Your task to perform on an android device: add a contact in the contacts app Image 0: 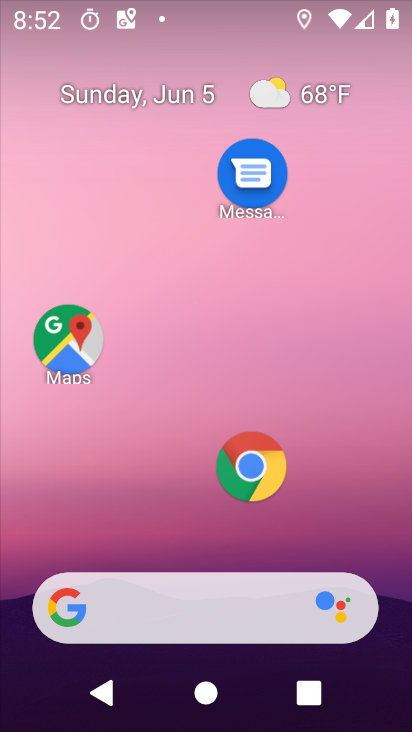
Step 0: drag from (217, 523) to (199, 34)
Your task to perform on an android device: add a contact in the contacts app Image 1: 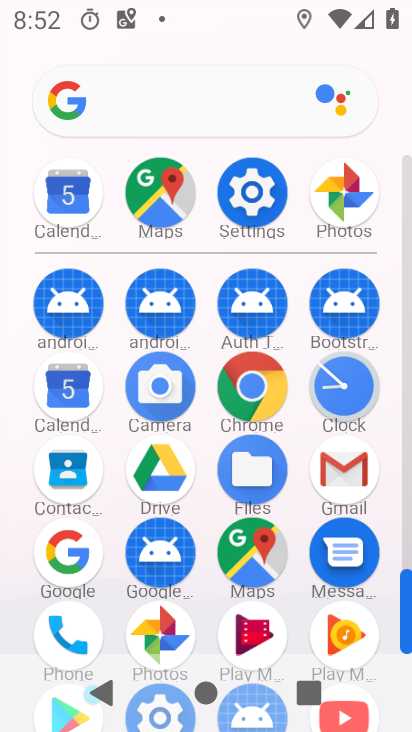
Step 1: click (71, 468)
Your task to perform on an android device: add a contact in the contacts app Image 2: 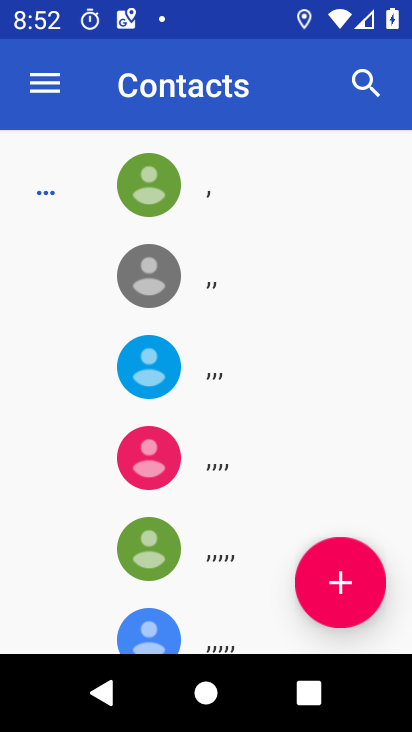
Step 2: drag from (209, 587) to (225, 198)
Your task to perform on an android device: add a contact in the contacts app Image 3: 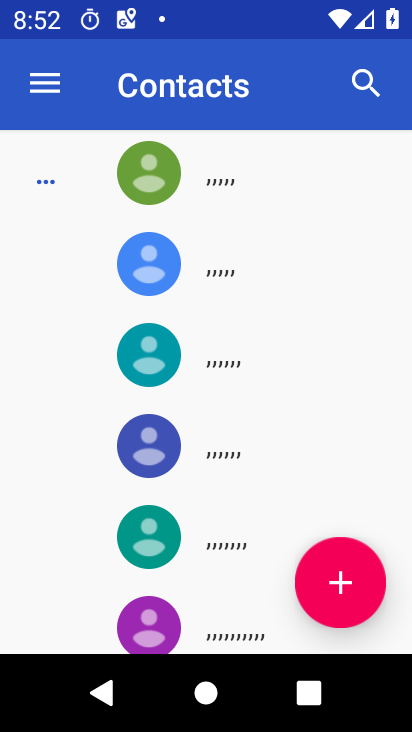
Step 3: drag from (188, 567) to (187, 249)
Your task to perform on an android device: add a contact in the contacts app Image 4: 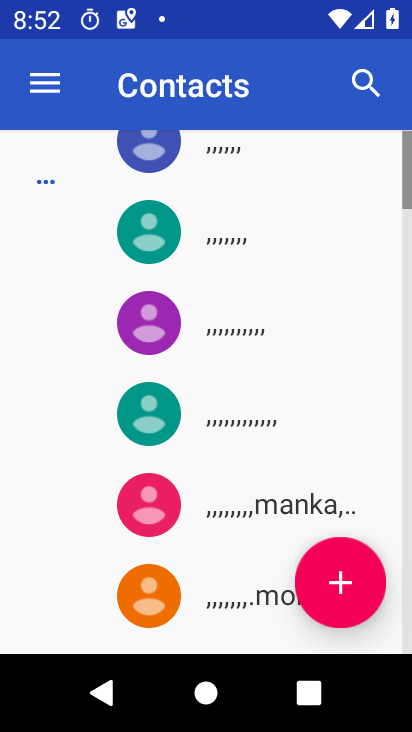
Step 4: drag from (221, 592) to (221, 343)
Your task to perform on an android device: add a contact in the contacts app Image 5: 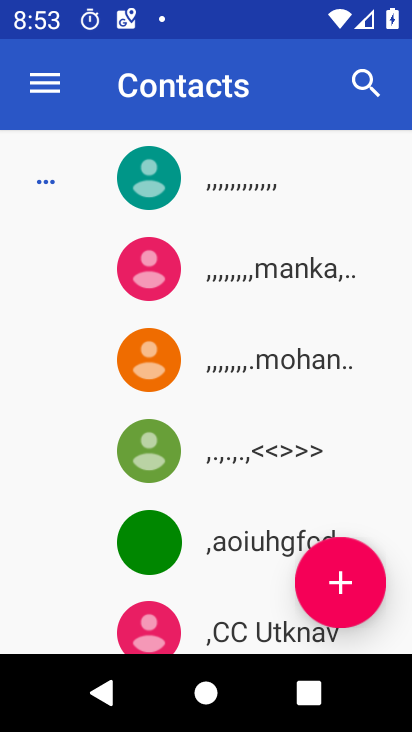
Step 5: click (343, 586)
Your task to perform on an android device: add a contact in the contacts app Image 6: 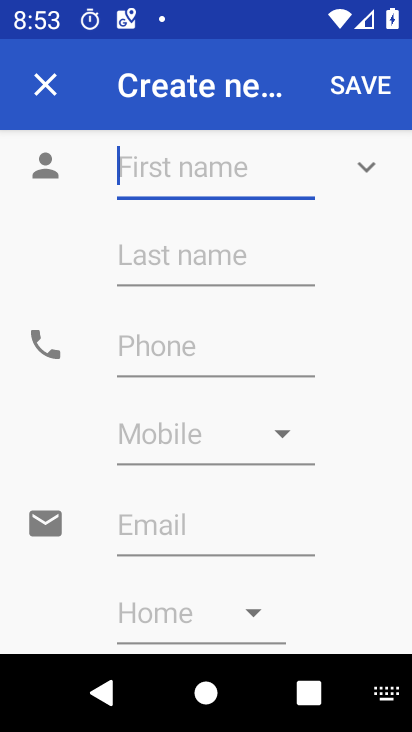
Step 6: click (158, 188)
Your task to perform on an android device: add a contact in the contacts app Image 7: 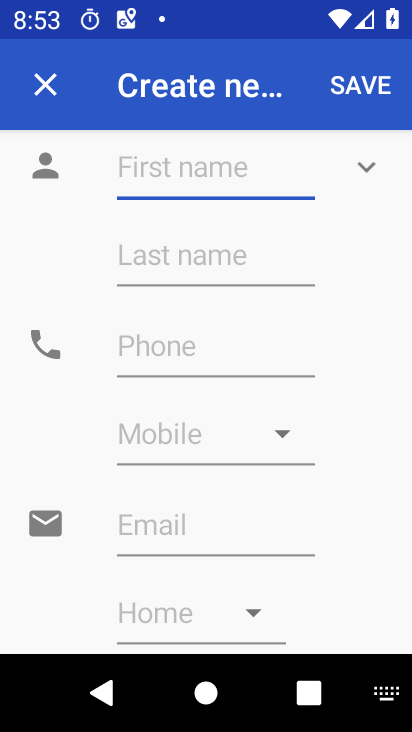
Step 7: type "mhj"
Your task to perform on an android device: add a contact in the contacts app Image 8: 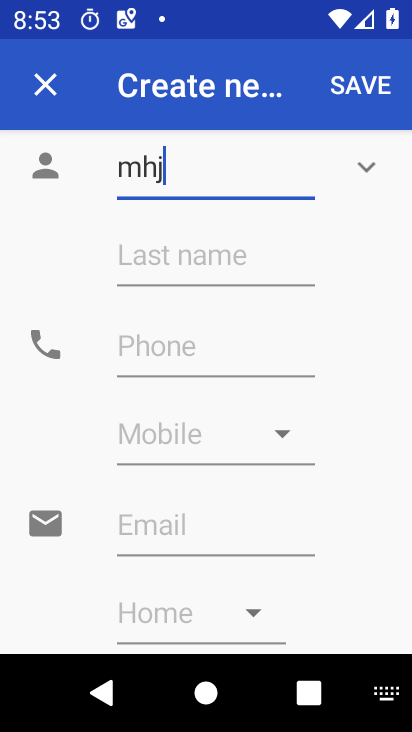
Step 8: click (346, 98)
Your task to perform on an android device: add a contact in the contacts app Image 9: 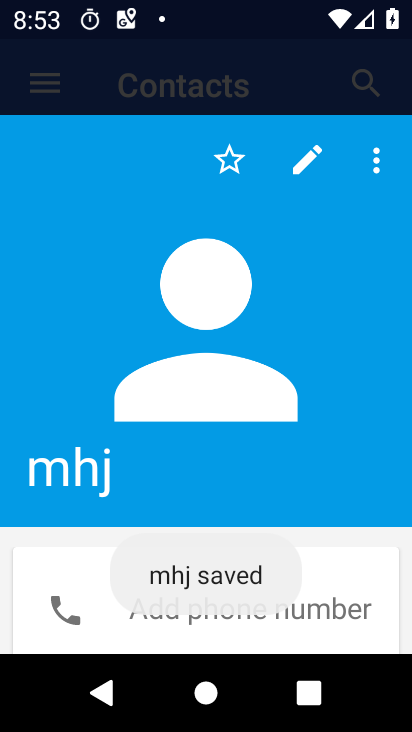
Step 9: task complete